Your task to perform on an android device: Open Android settings Image 0: 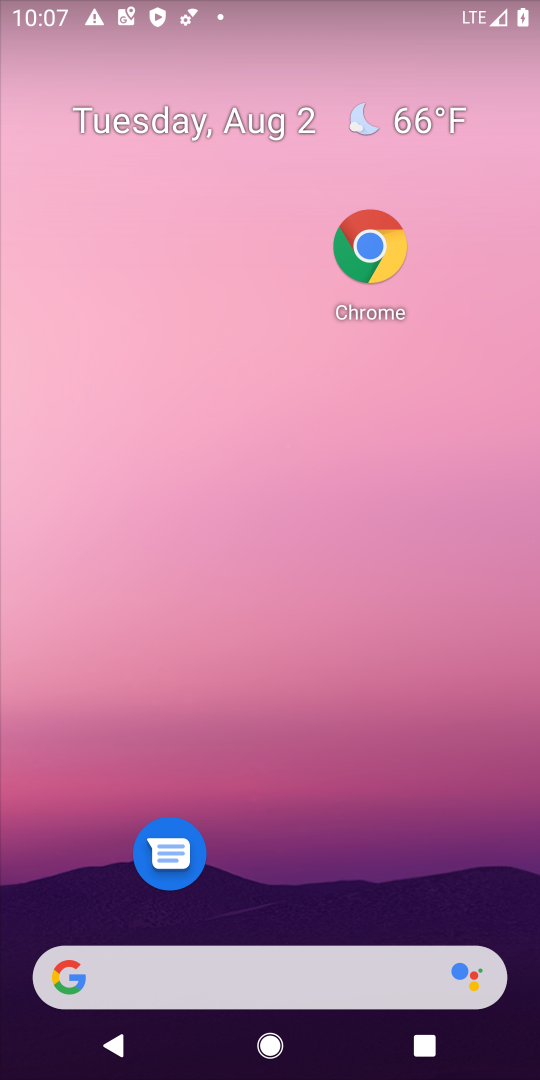
Step 0: drag from (250, 938) to (262, 3)
Your task to perform on an android device: Open Android settings Image 1: 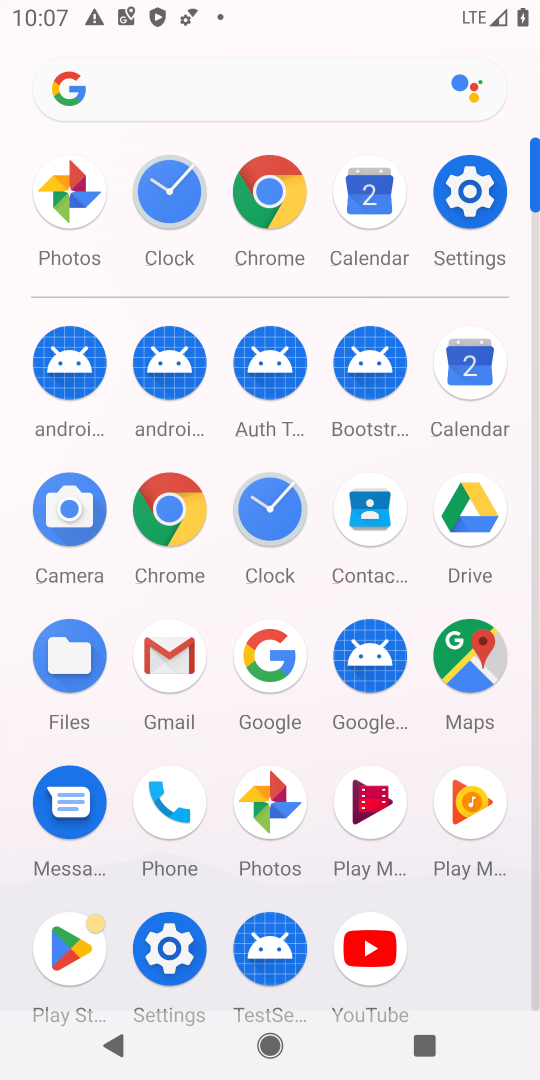
Step 1: click (454, 200)
Your task to perform on an android device: Open Android settings Image 2: 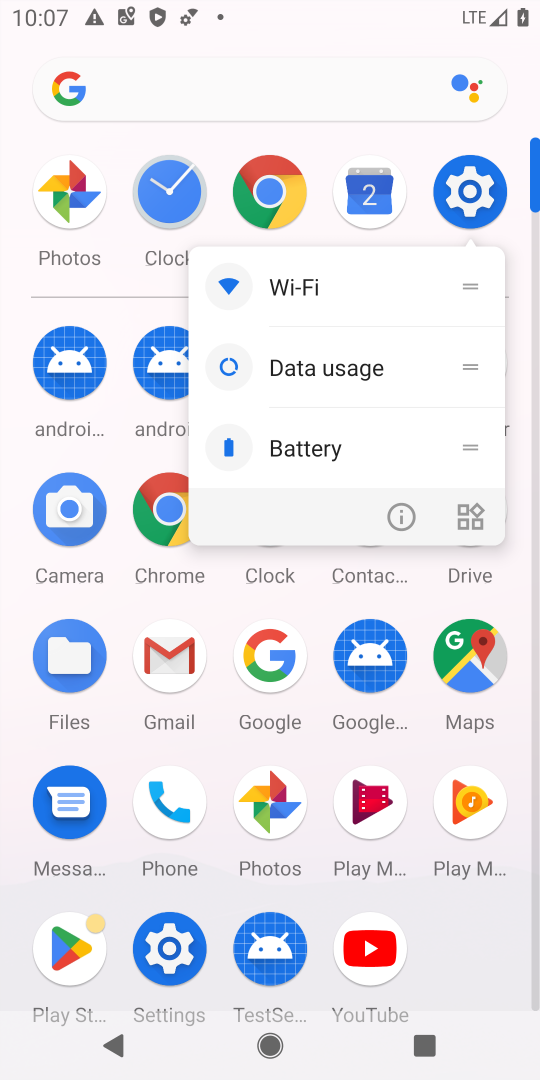
Step 2: click (464, 189)
Your task to perform on an android device: Open Android settings Image 3: 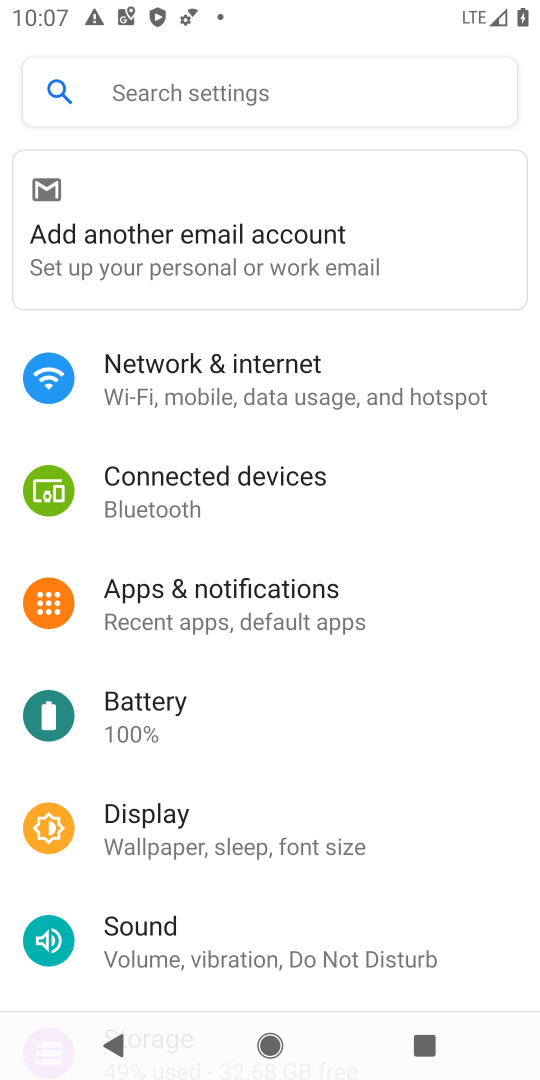
Step 3: task complete